Your task to perform on an android device: Open Youtube and go to "Your channel" Image 0: 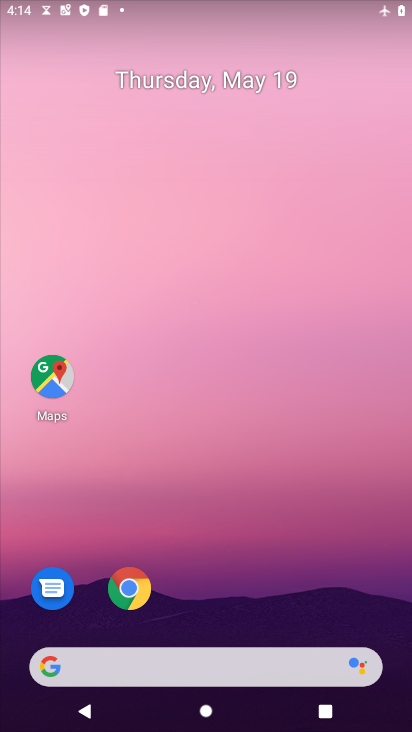
Step 0: drag from (214, 616) to (223, 146)
Your task to perform on an android device: Open Youtube and go to "Your channel" Image 1: 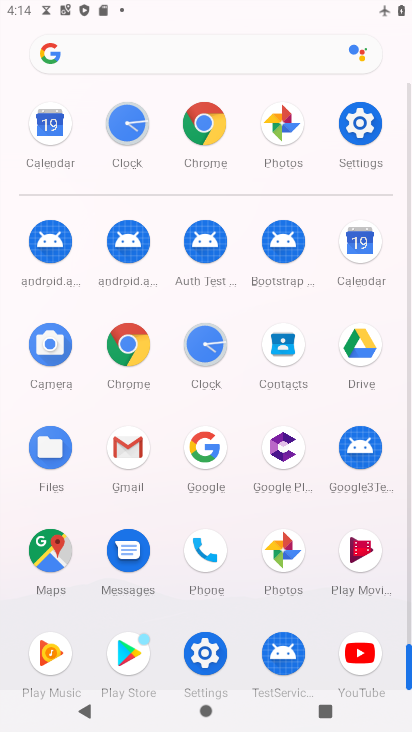
Step 1: click (360, 662)
Your task to perform on an android device: Open Youtube and go to "Your channel" Image 2: 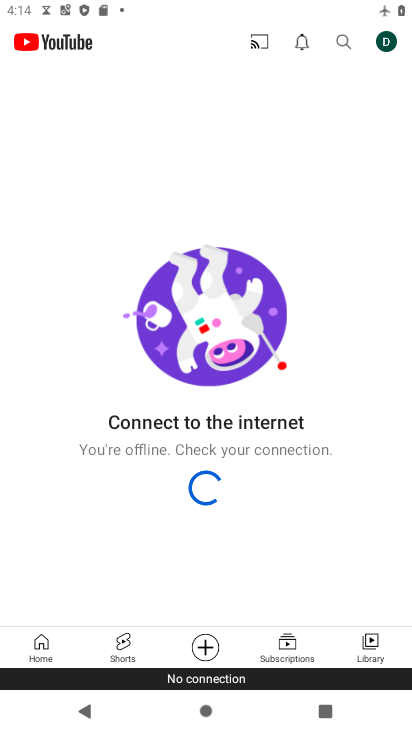
Step 2: drag from (346, 6) to (330, 484)
Your task to perform on an android device: Open Youtube and go to "Your channel" Image 3: 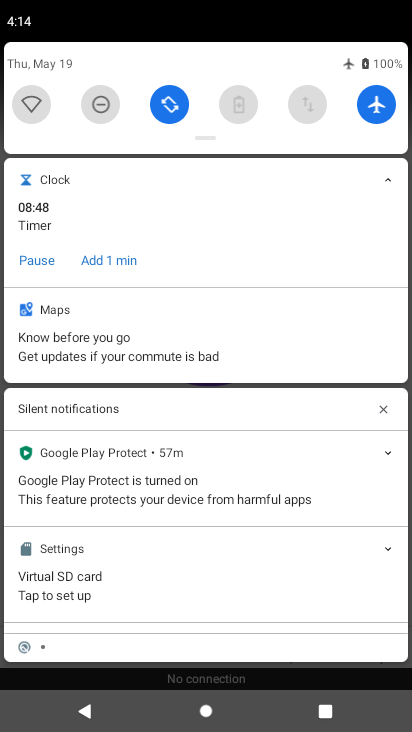
Step 3: click (377, 110)
Your task to perform on an android device: Open Youtube and go to "Your channel" Image 4: 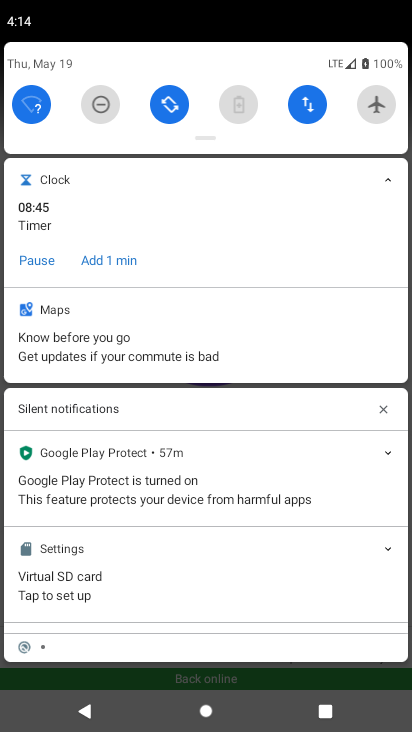
Step 4: drag from (307, 686) to (337, 270)
Your task to perform on an android device: Open Youtube and go to "Your channel" Image 5: 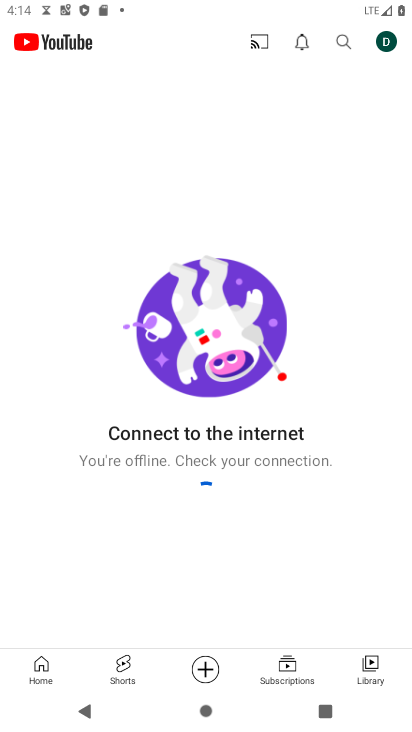
Step 5: click (386, 36)
Your task to perform on an android device: Open Youtube and go to "Your channel" Image 6: 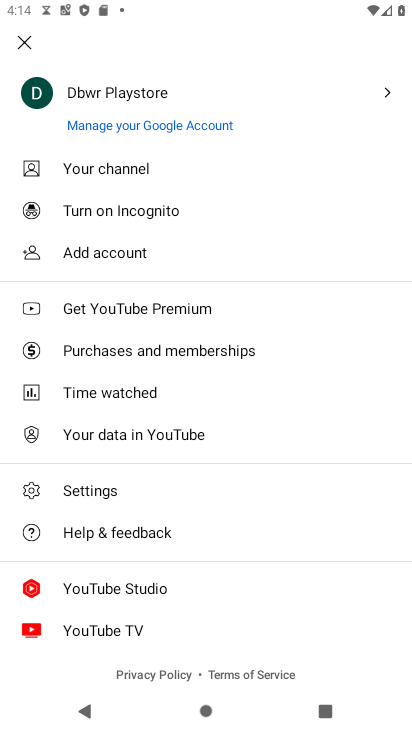
Step 6: click (130, 168)
Your task to perform on an android device: Open Youtube and go to "Your channel" Image 7: 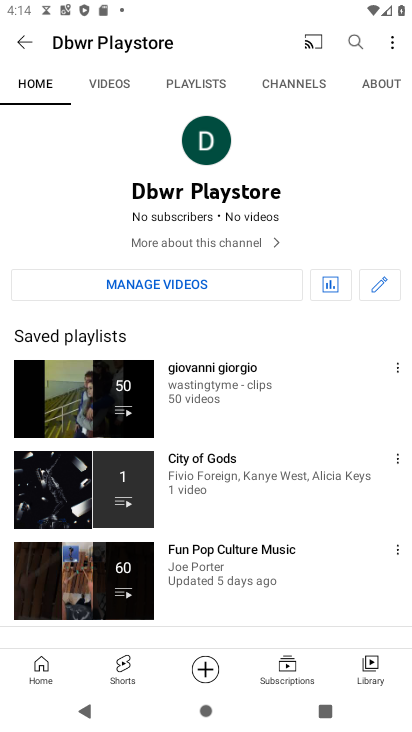
Step 7: task complete